Your task to perform on an android device: Search for sushi restaurants on Maps Image 0: 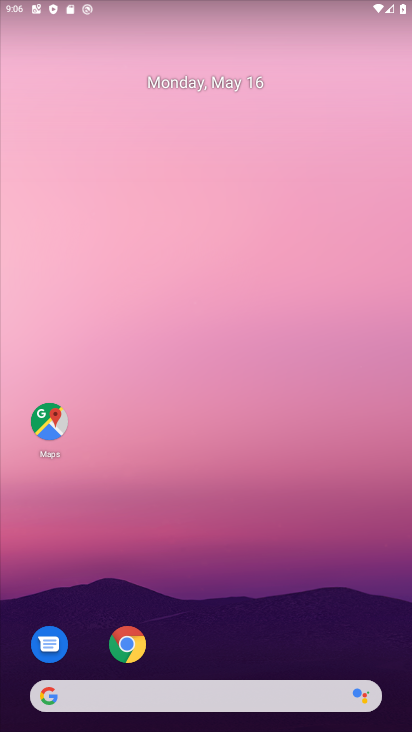
Step 0: click (56, 427)
Your task to perform on an android device: Search for sushi restaurants on Maps Image 1: 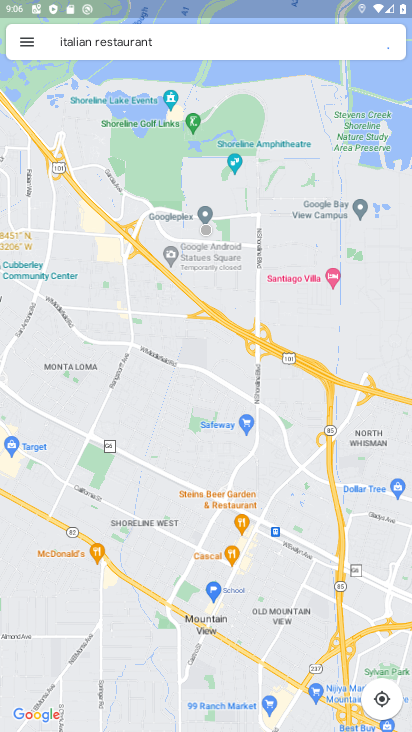
Step 1: click (210, 45)
Your task to perform on an android device: Search for sushi restaurants on Maps Image 2: 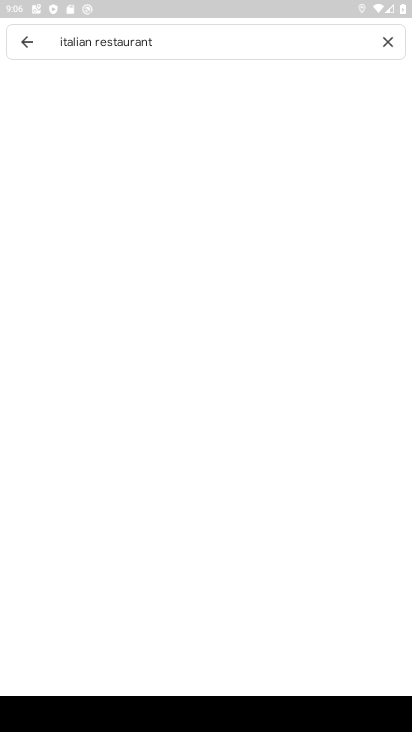
Step 2: click (387, 44)
Your task to perform on an android device: Search for sushi restaurants on Maps Image 3: 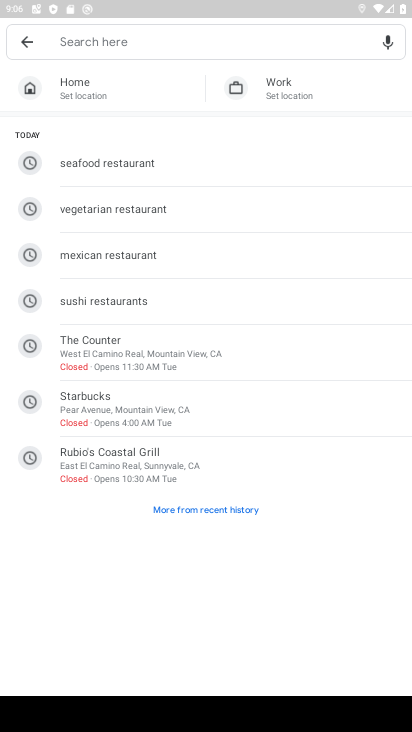
Step 3: click (138, 300)
Your task to perform on an android device: Search for sushi restaurants on Maps Image 4: 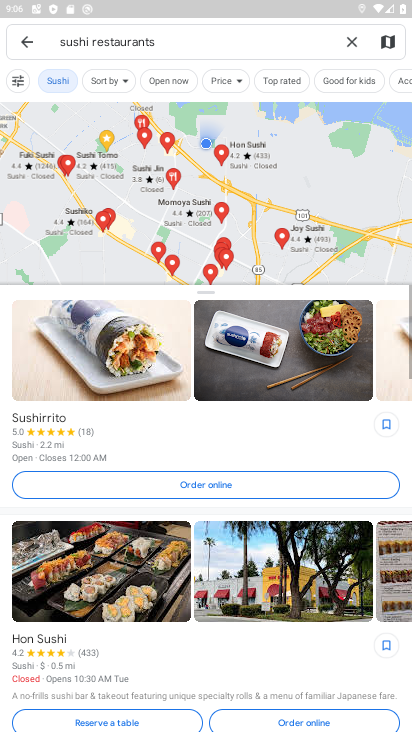
Step 4: task complete